Your task to perform on an android device: change the clock display to show seconds Image 0: 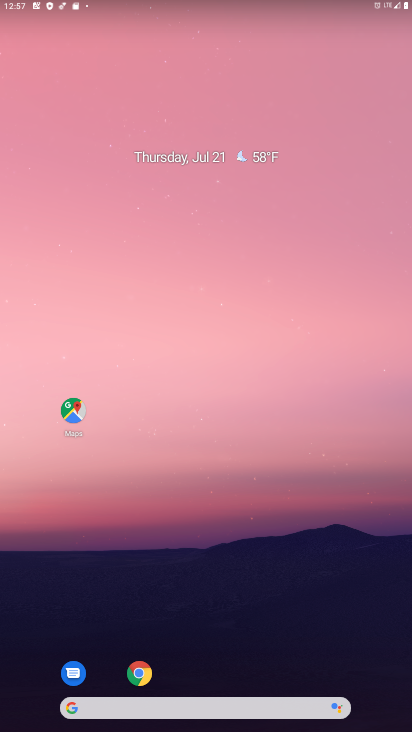
Step 0: drag from (253, 640) to (318, 276)
Your task to perform on an android device: change the clock display to show seconds Image 1: 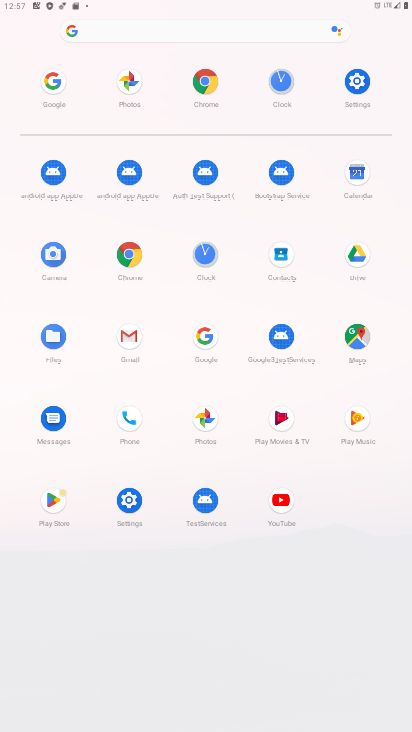
Step 1: click (195, 247)
Your task to perform on an android device: change the clock display to show seconds Image 2: 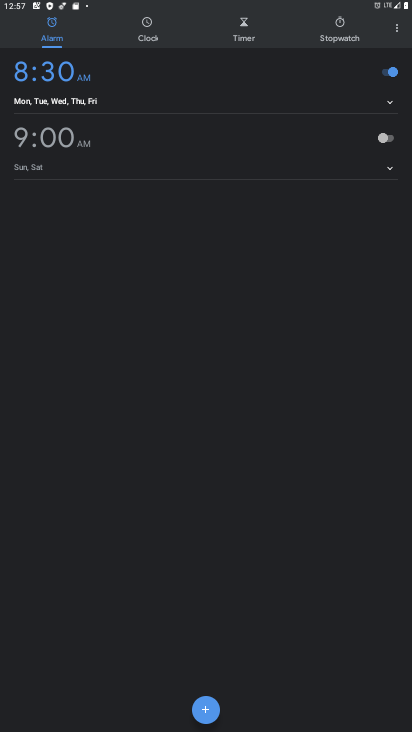
Step 2: click (395, 31)
Your task to perform on an android device: change the clock display to show seconds Image 3: 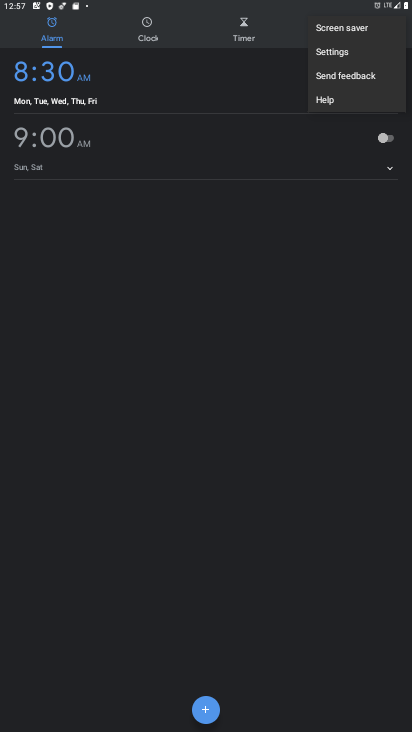
Step 3: click (340, 59)
Your task to perform on an android device: change the clock display to show seconds Image 4: 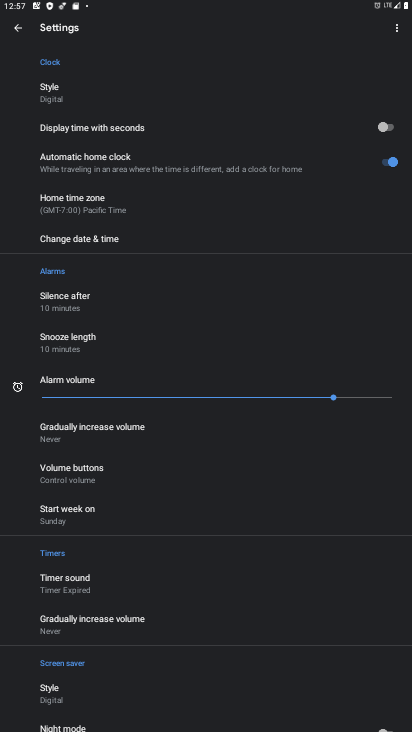
Step 4: click (385, 129)
Your task to perform on an android device: change the clock display to show seconds Image 5: 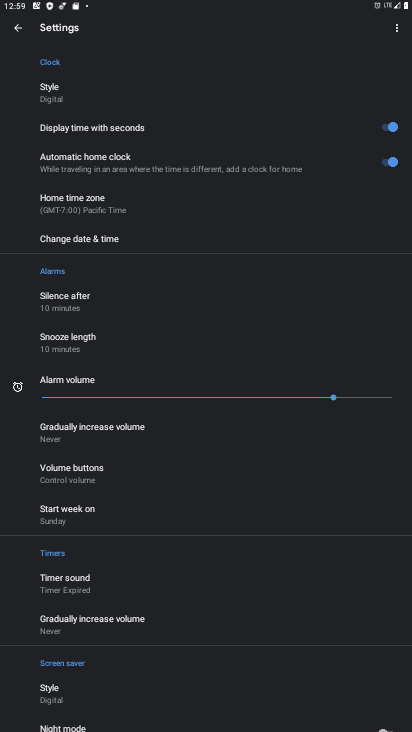
Step 5: task complete